Your task to perform on an android device: Open Google Chrome Image 0: 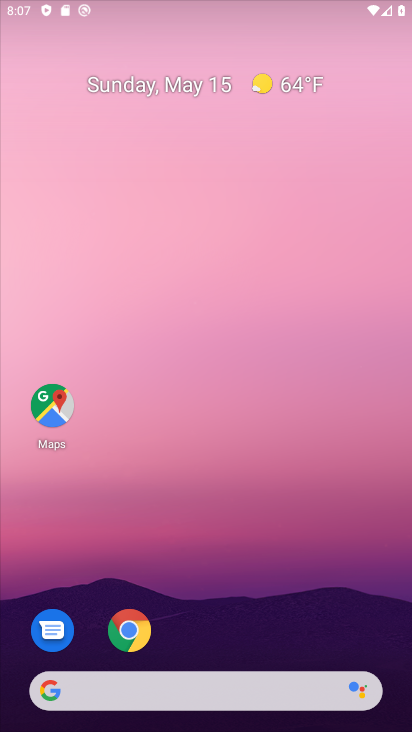
Step 0: drag from (292, 593) to (208, 43)
Your task to perform on an android device: Open Google Chrome Image 1: 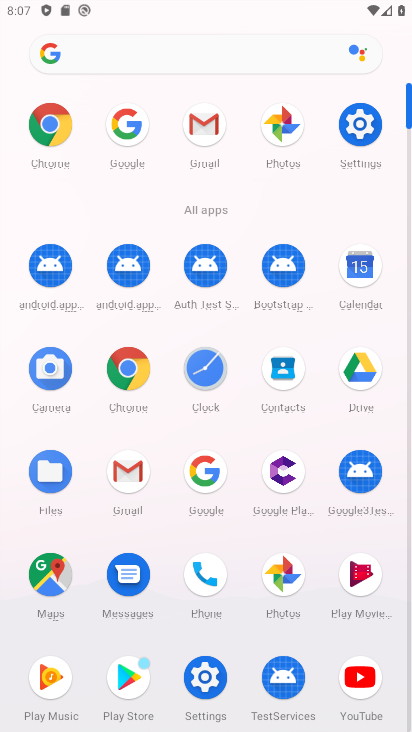
Step 1: click (56, 127)
Your task to perform on an android device: Open Google Chrome Image 2: 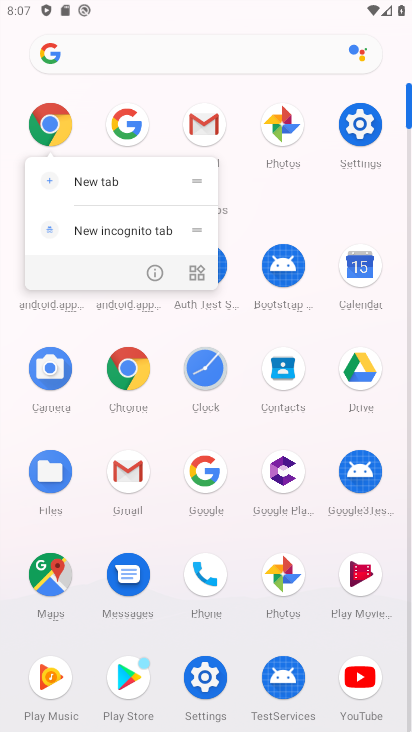
Step 2: click (56, 126)
Your task to perform on an android device: Open Google Chrome Image 3: 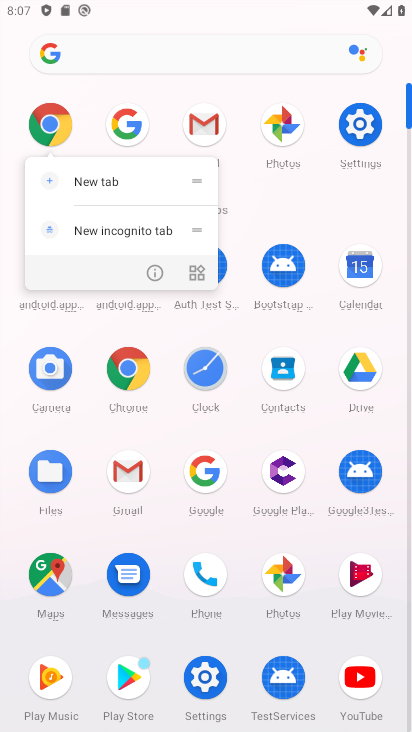
Step 3: click (56, 126)
Your task to perform on an android device: Open Google Chrome Image 4: 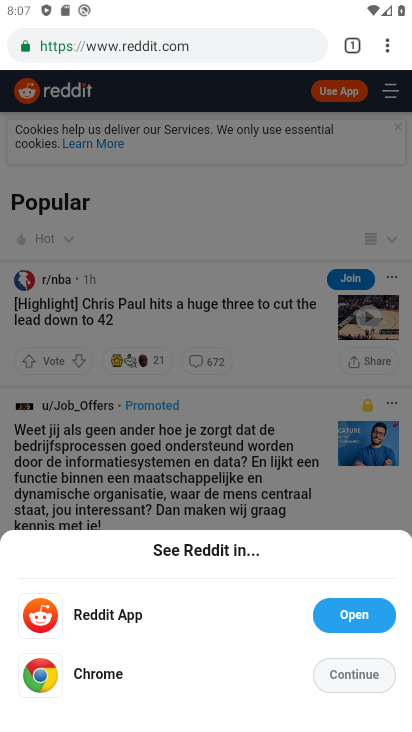
Step 4: task complete